Your task to perform on an android device: Open Amazon Image 0: 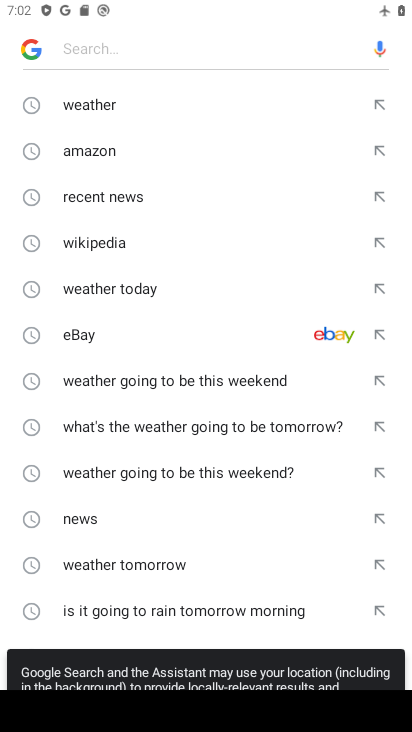
Step 0: press home button
Your task to perform on an android device: Open Amazon Image 1: 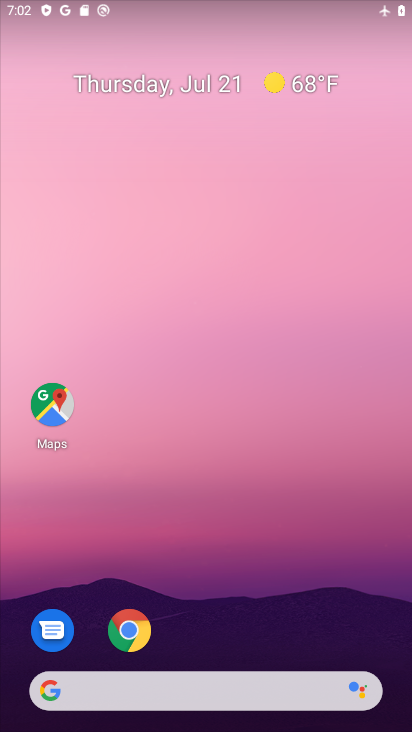
Step 1: drag from (302, 537) to (264, 0)
Your task to perform on an android device: Open Amazon Image 2: 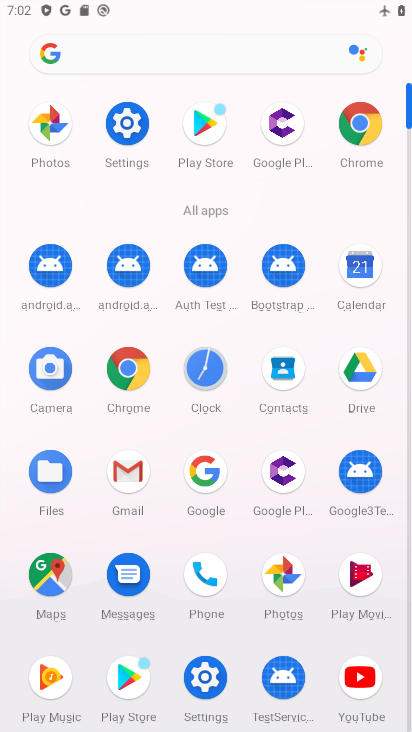
Step 2: click (332, 120)
Your task to perform on an android device: Open Amazon Image 3: 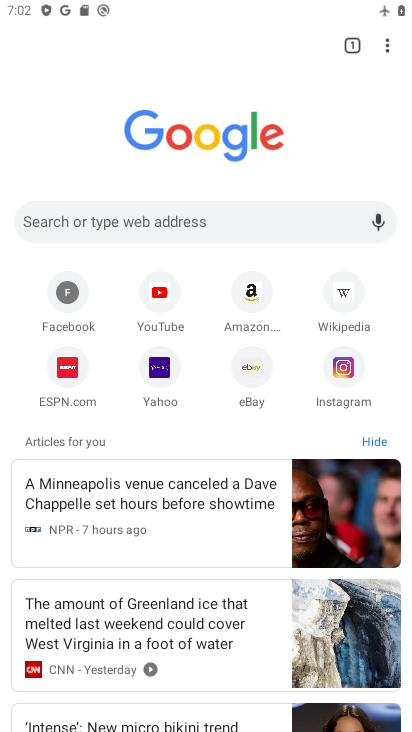
Step 3: click (249, 300)
Your task to perform on an android device: Open Amazon Image 4: 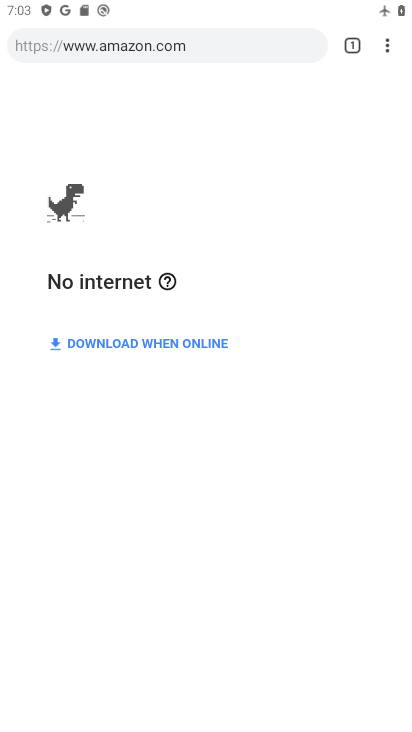
Step 4: task complete